Your task to perform on an android device: Go to Yahoo.com Image 0: 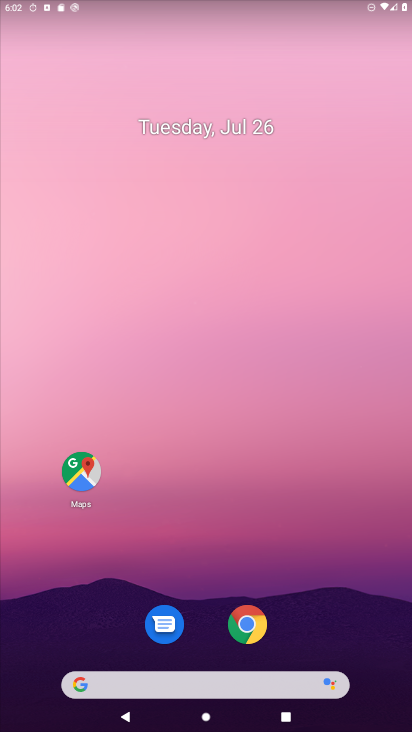
Step 0: drag from (198, 681) to (290, 19)
Your task to perform on an android device: Go to Yahoo.com Image 1: 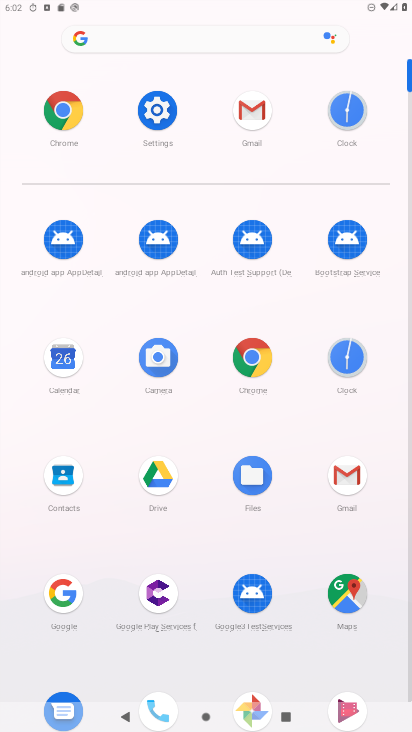
Step 1: click (243, 353)
Your task to perform on an android device: Go to Yahoo.com Image 2: 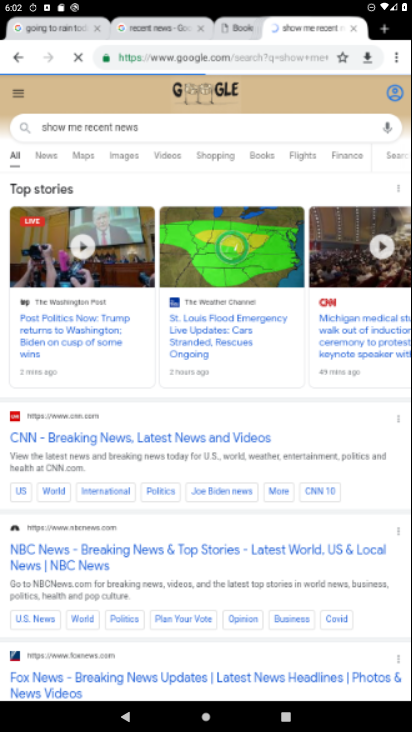
Step 2: click (210, 55)
Your task to perform on an android device: Go to Yahoo.com Image 3: 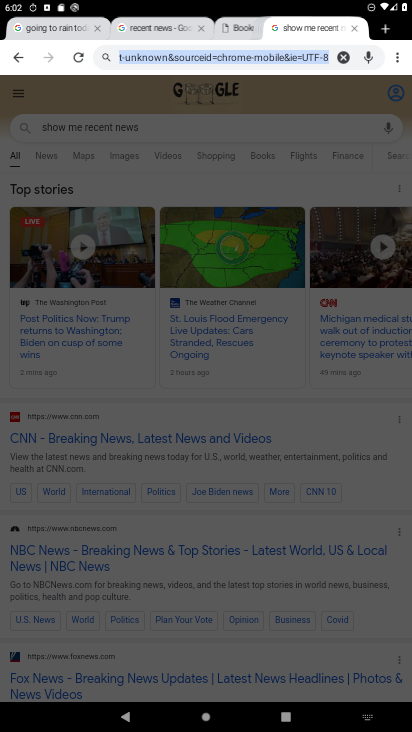
Step 3: type "yahoo.com"
Your task to perform on an android device: Go to Yahoo.com Image 4: 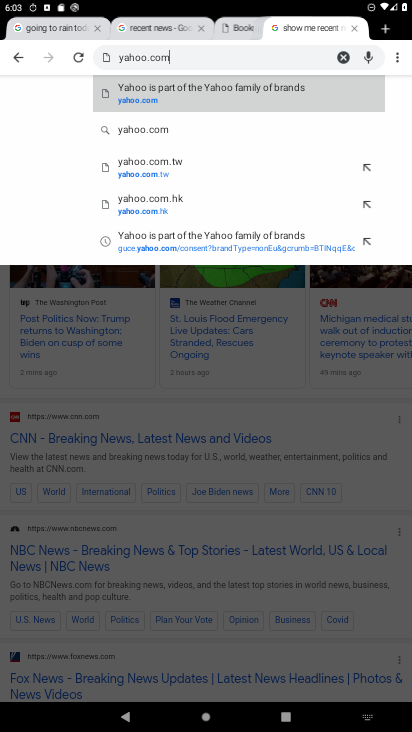
Step 4: click (160, 96)
Your task to perform on an android device: Go to Yahoo.com Image 5: 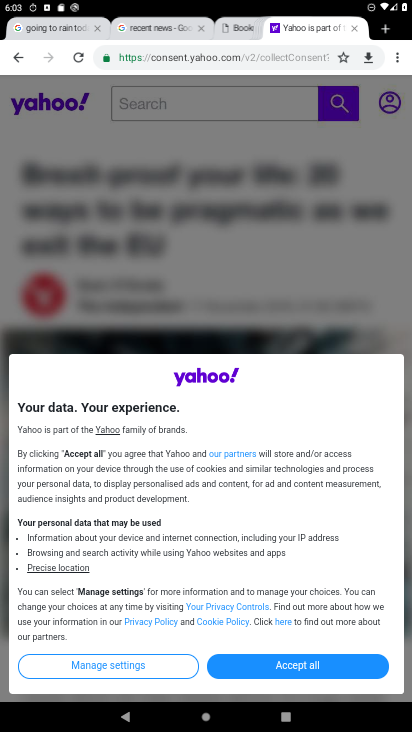
Step 5: task complete